Your task to perform on an android device: Show the shopping cart on newegg. Image 0: 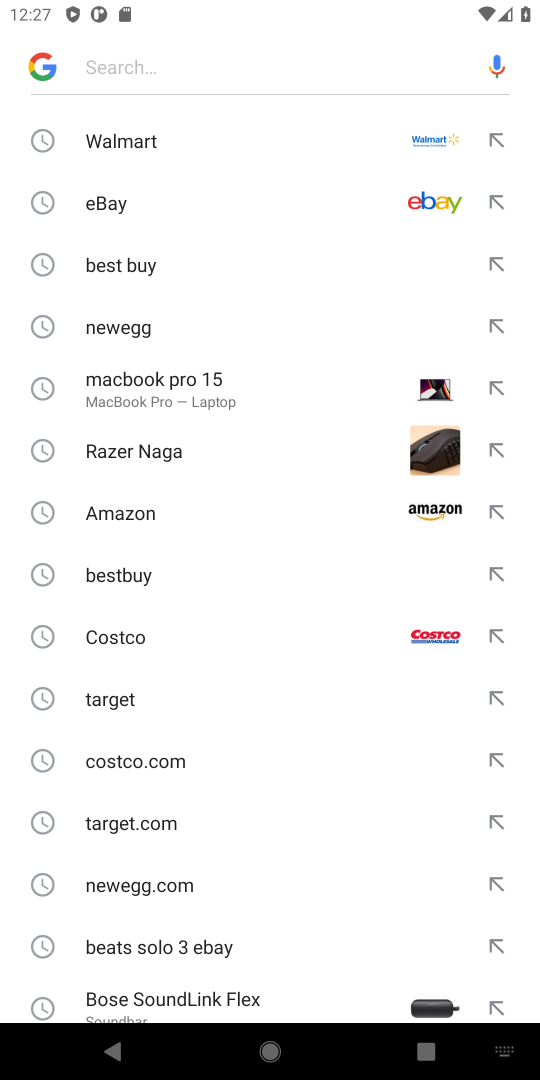
Step 0: click (114, 324)
Your task to perform on an android device: Show the shopping cart on newegg. Image 1: 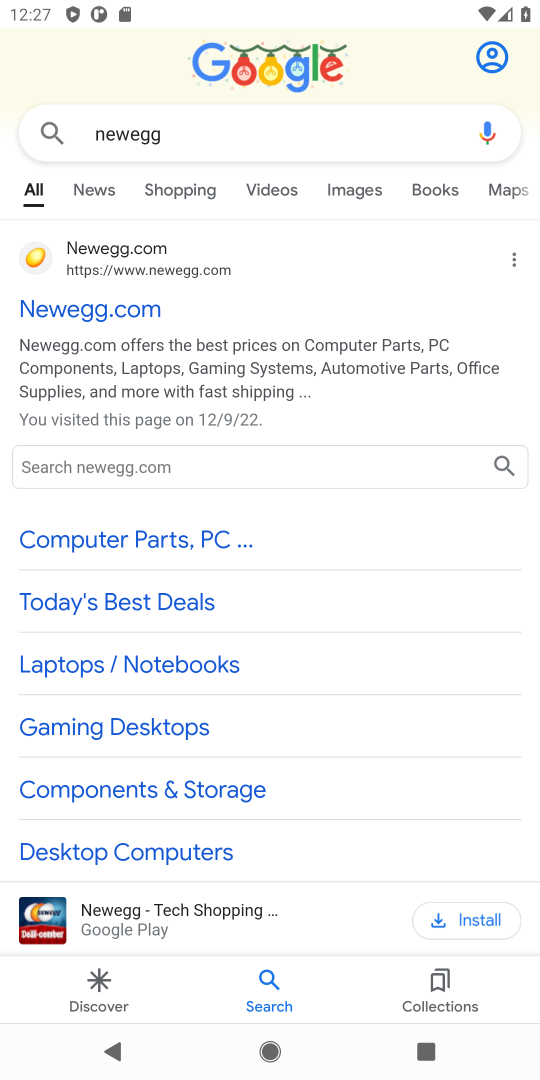
Step 1: click (74, 317)
Your task to perform on an android device: Show the shopping cart on newegg. Image 2: 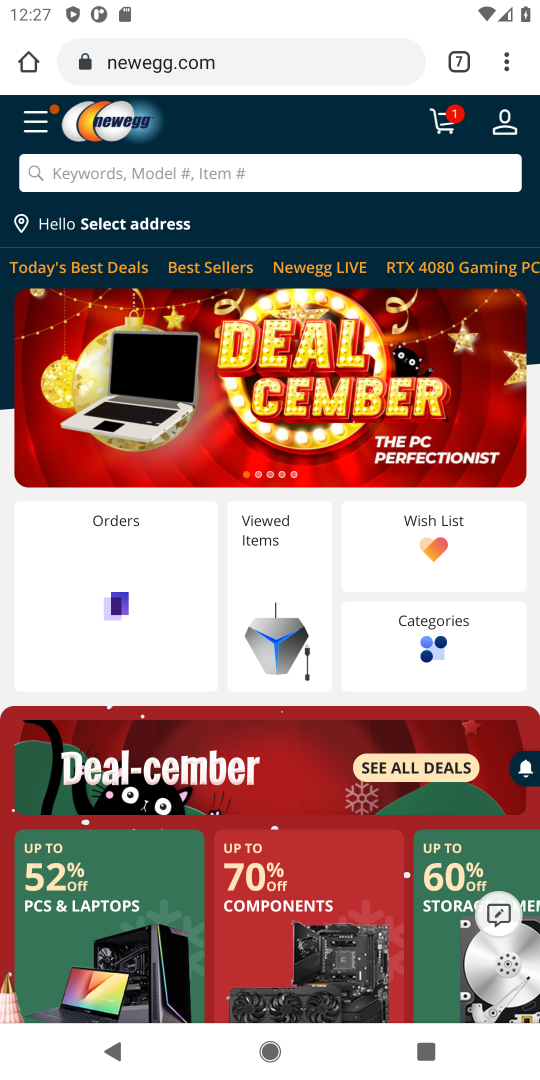
Step 2: click (69, 177)
Your task to perform on an android device: Show the shopping cart on newegg. Image 3: 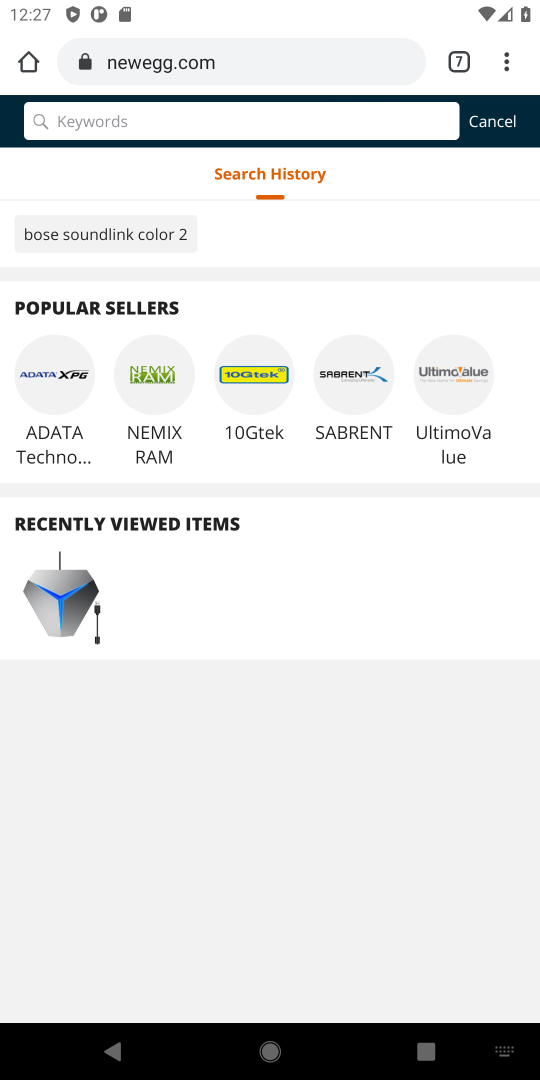
Step 3: click (486, 118)
Your task to perform on an android device: Show the shopping cart on newegg. Image 4: 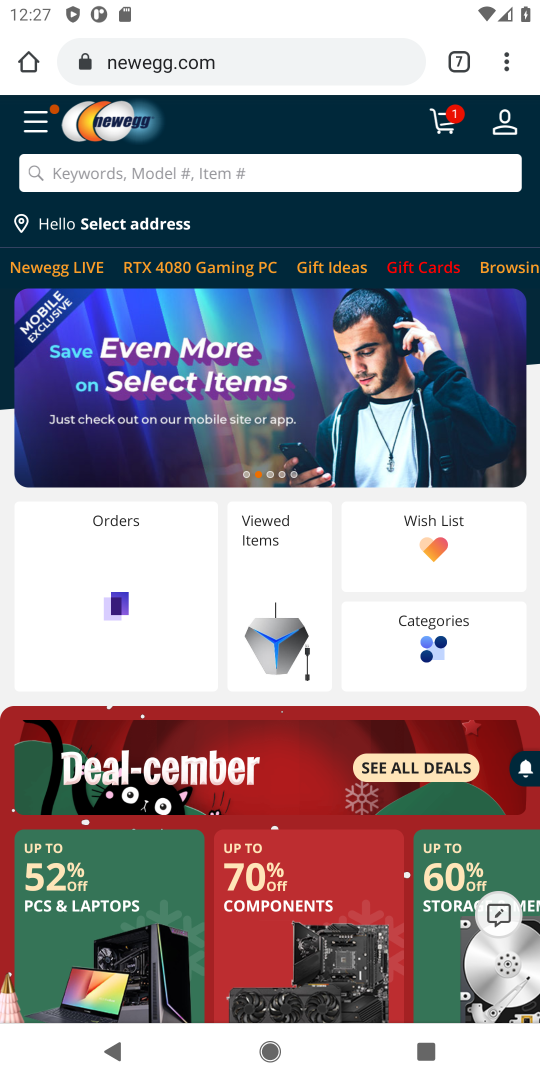
Step 4: click (444, 123)
Your task to perform on an android device: Show the shopping cart on newegg. Image 5: 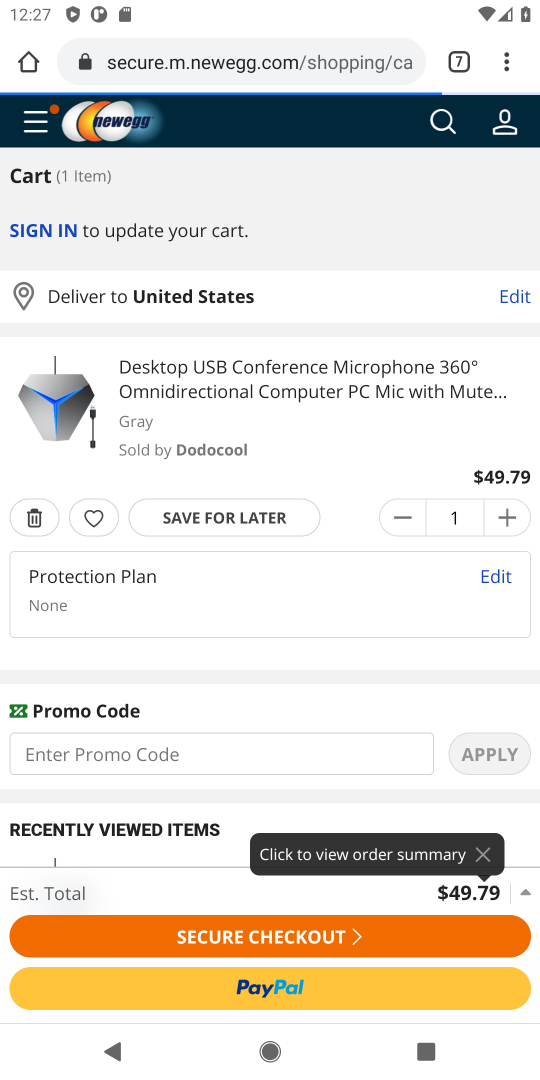
Step 5: task complete